Your task to perform on an android device: Search for pizza restaurants on Maps Image 0: 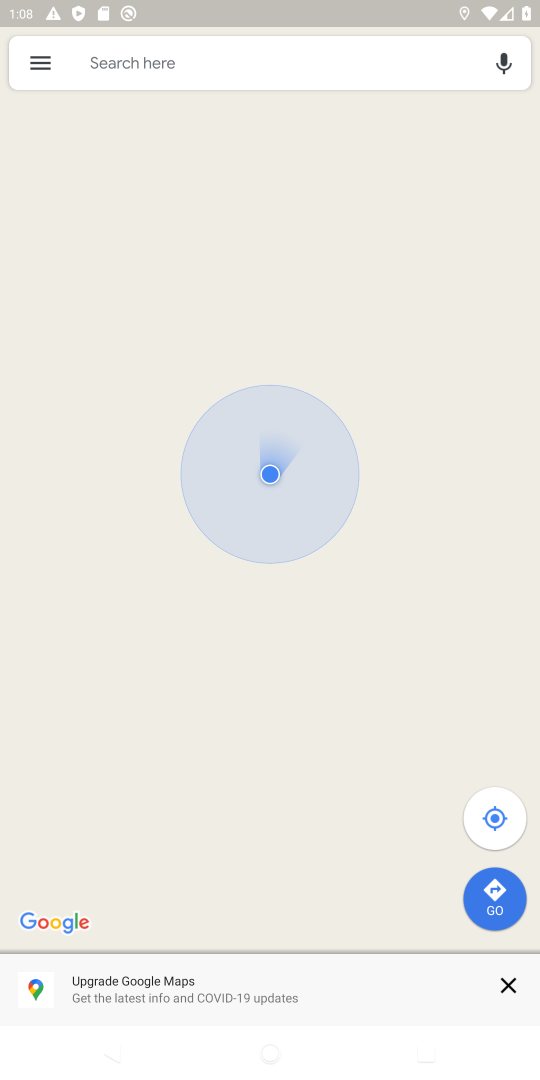
Step 0: press home button
Your task to perform on an android device: Search for pizza restaurants on Maps Image 1: 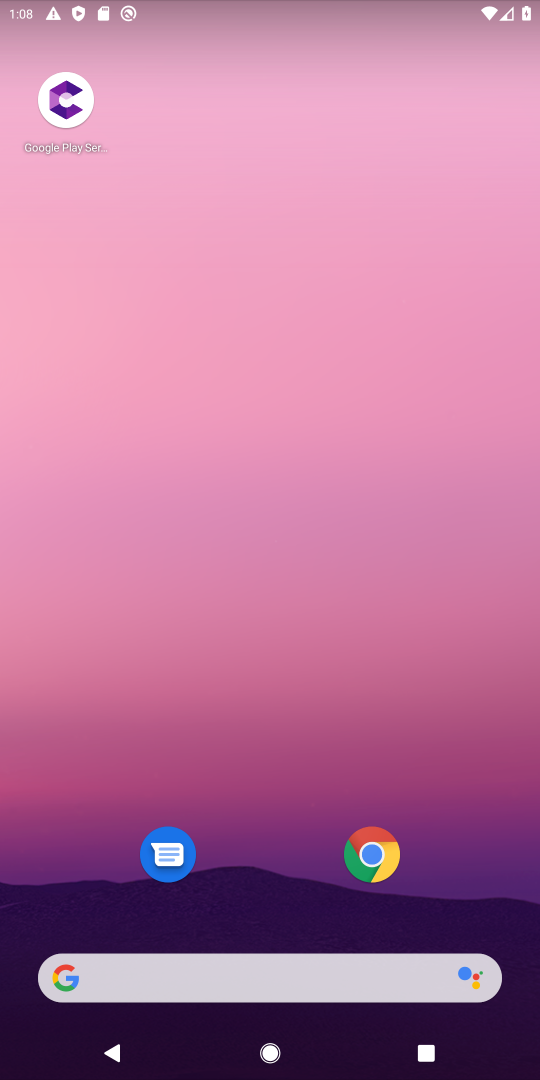
Step 1: drag from (39, 1028) to (381, 185)
Your task to perform on an android device: Search for pizza restaurants on Maps Image 2: 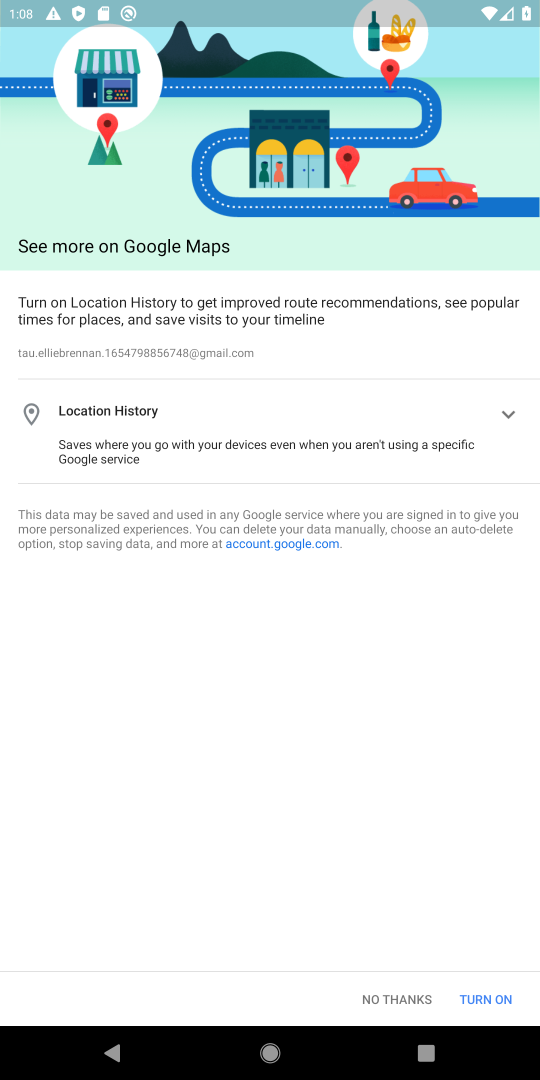
Step 2: click (412, 995)
Your task to perform on an android device: Search for pizza restaurants on Maps Image 3: 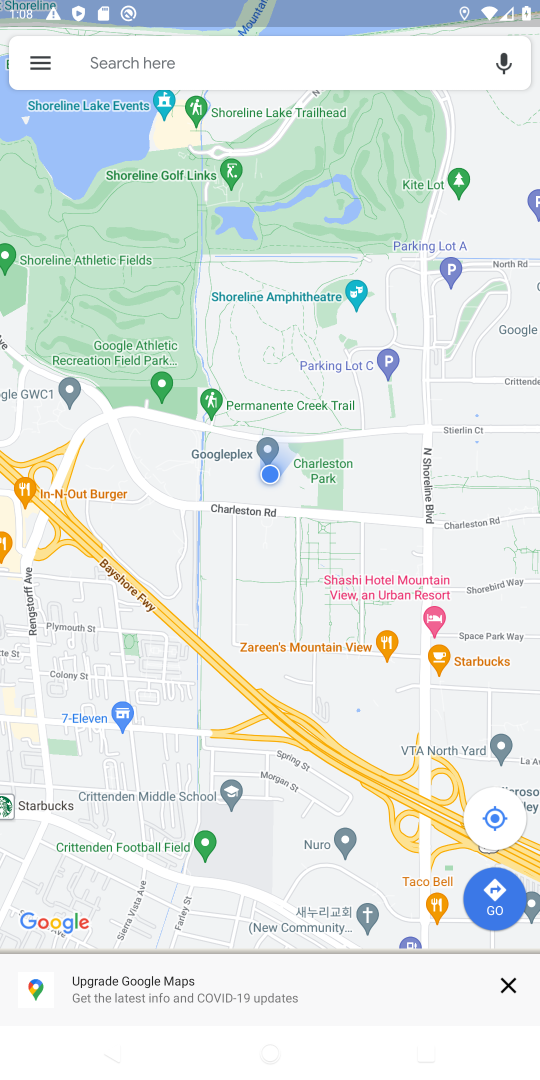
Step 3: click (86, 61)
Your task to perform on an android device: Search for pizza restaurants on Maps Image 4: 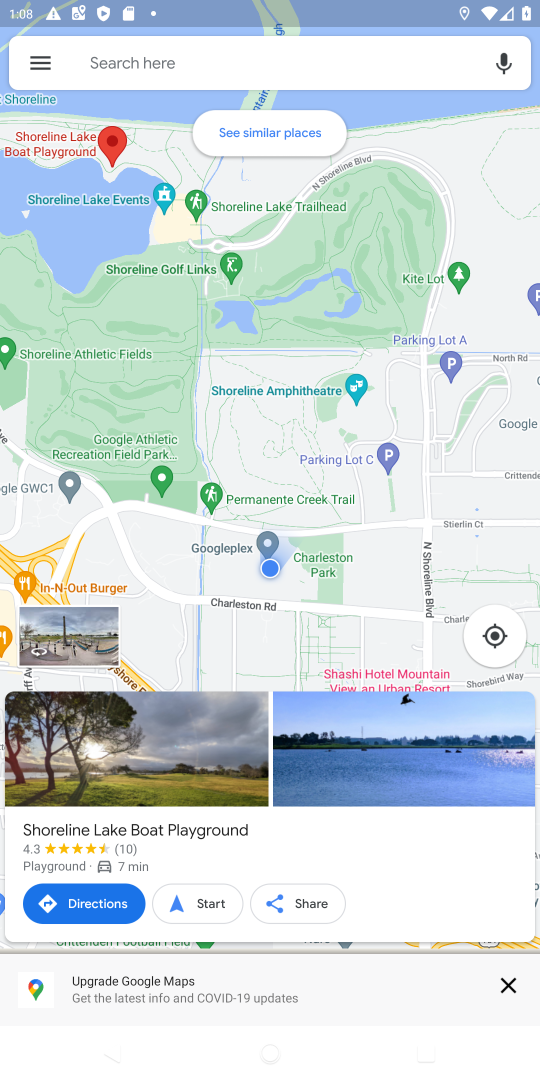
Step 4: click (104, 57)
Your task to perform on an android device: Search for pizza restaurants on Maps Image 5: 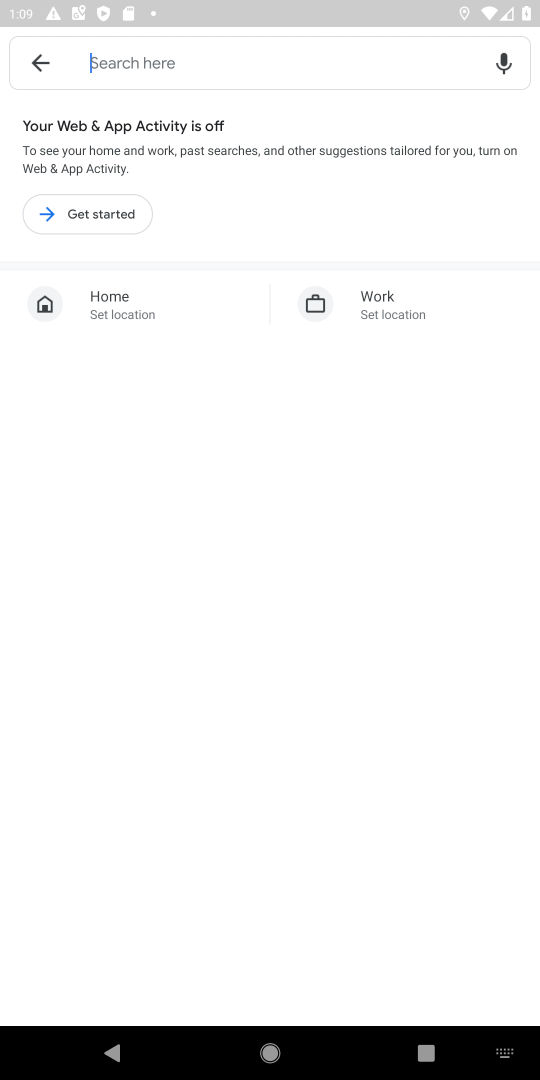
Step 5: type "pizza restaurants"
Your task to perform on an android device: Search for pizza restaurants on Maps Image 6: 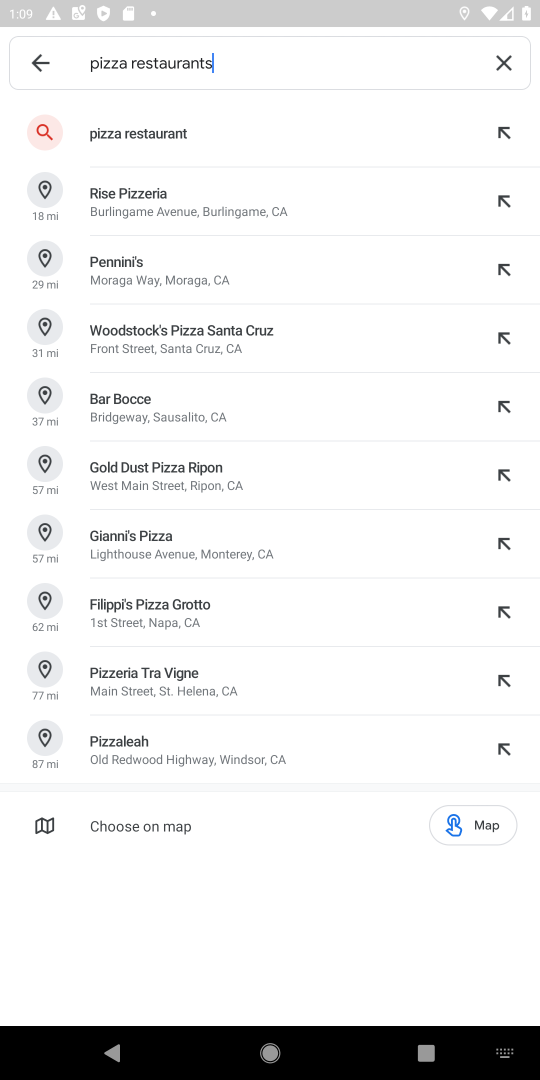
Step 6: click (159, 133)
Your task to perform on an android device: Search for pizza restaurants on Maps Image 7: 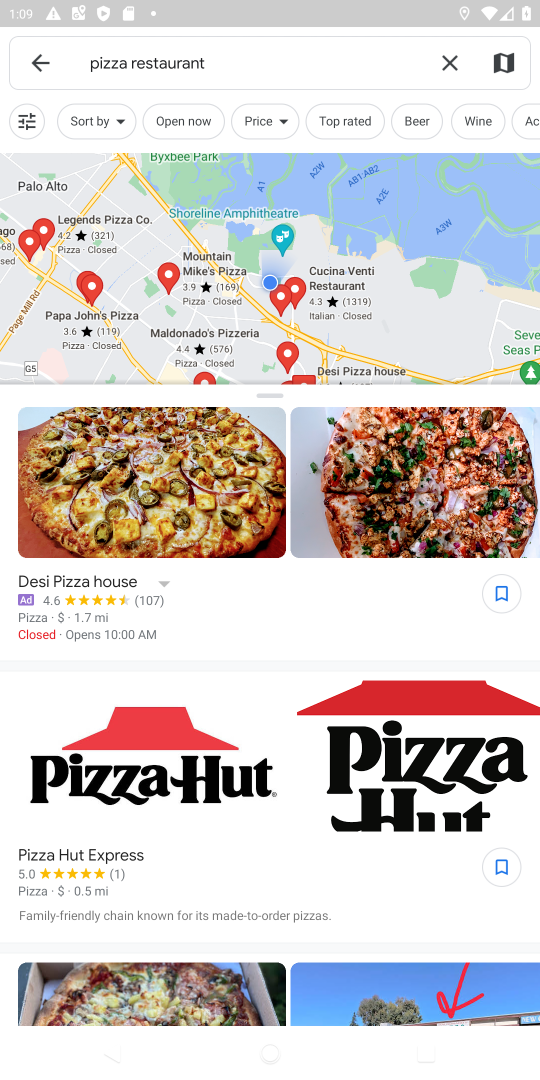
Step 7: task complete